Your task to perform on an android device: Go to Wikipedia Image 0: 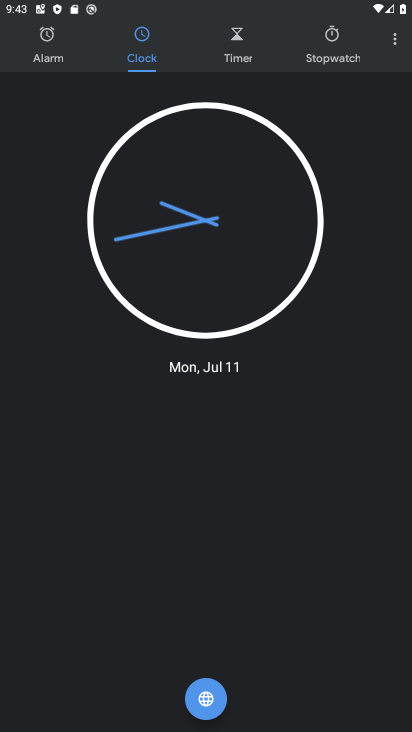
Step 0: press home button
Your task to perform on an android device: Go to Wikipedia Image 1: 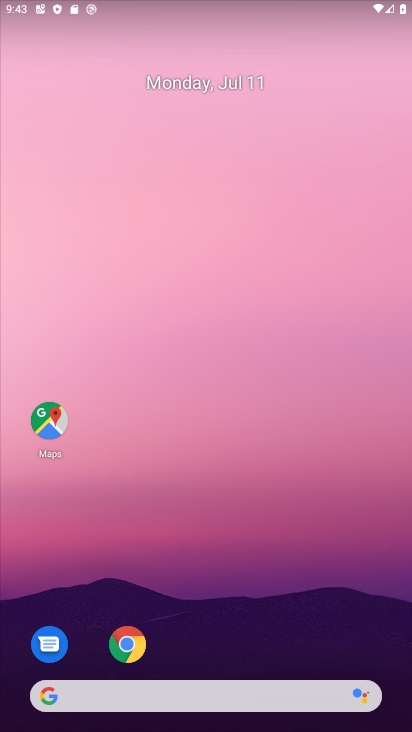
Step 1: click (123, 635)
Your task to perform on an android device: Go to Wikipedia Image 2: 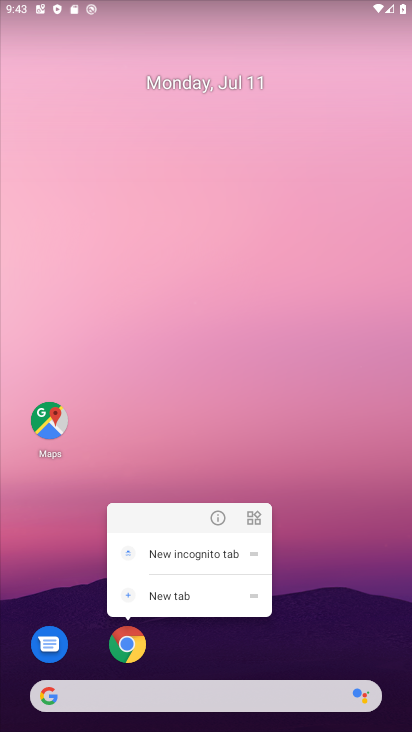
Step 2: click (126, 638)
Your task to perform on an android device: Go to Wikipedia Image 3: 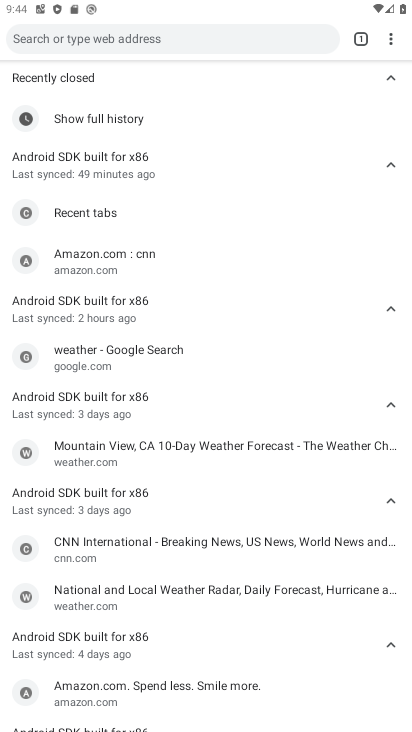
Step 3: click (361, 35)
Your task to perform on an android device: Go to Wikipedia Image 4: 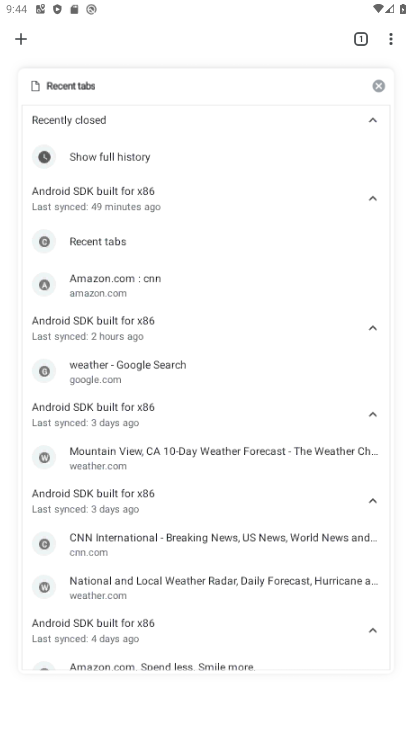
Step 4: click (16, 38)
Your task to perform on an android device: Go to Wikipedia Image 5: 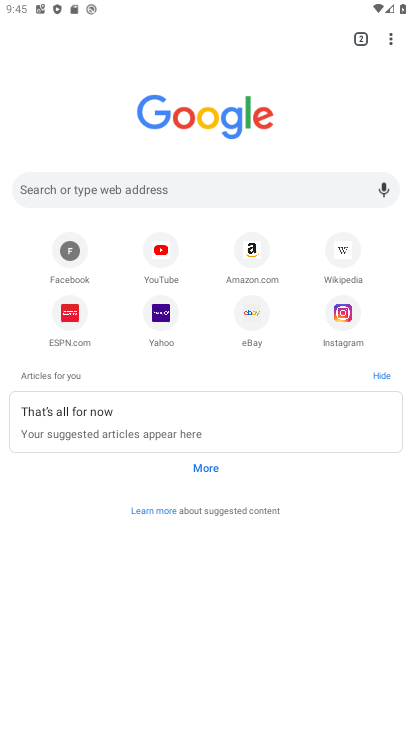
Step 5: click (348, 245)
Your task to perform on an android device: Go to Wikipedia Image 6: 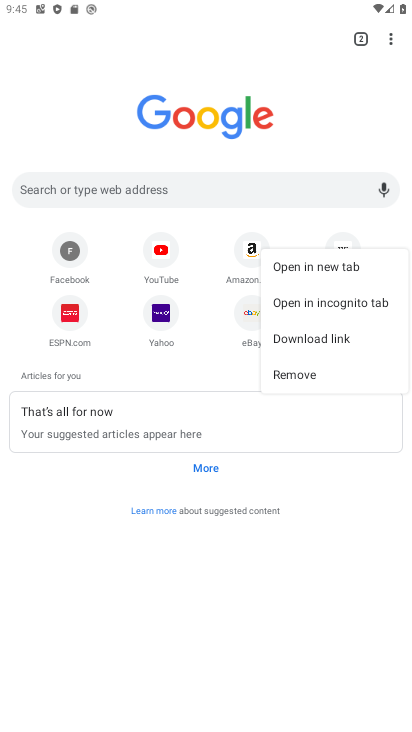
Step 6: click (336, 584)
Your task to perform on an android device: Go to Wikipedia Image 7: 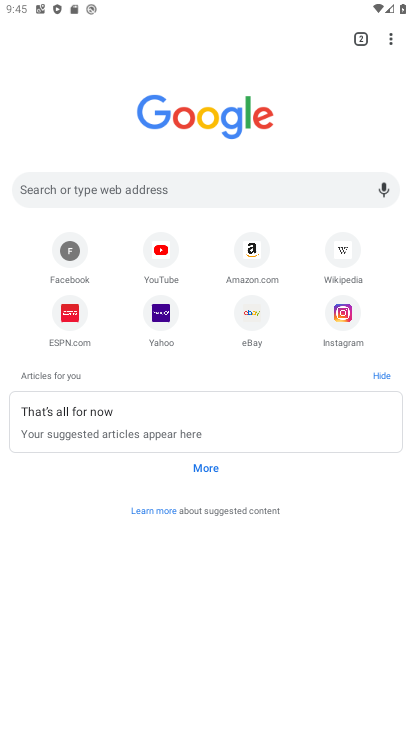
Step 7: click (341, 253)
Your task to perform on an android device: Go to Wikipedia Image 8: 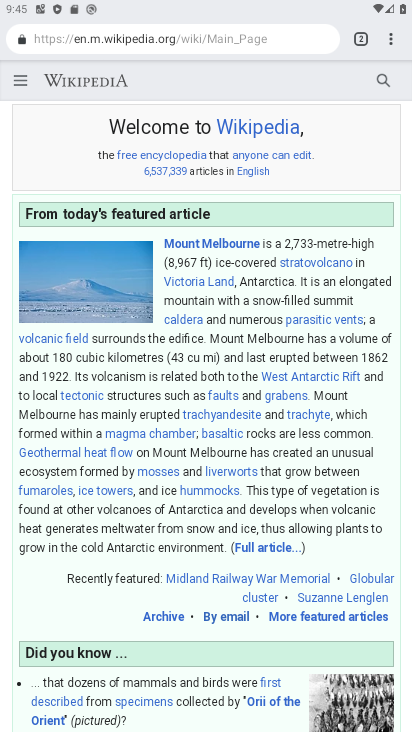
Step 8: task complete